Your task to perform on an android device: check android version Image 0: 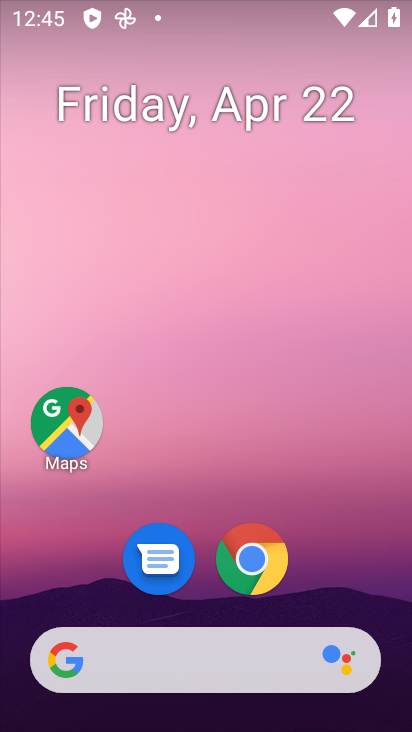
Step 0: drag from (336, 583) to (351, 177)
Your task to perform on an android device: check android version Image 1: 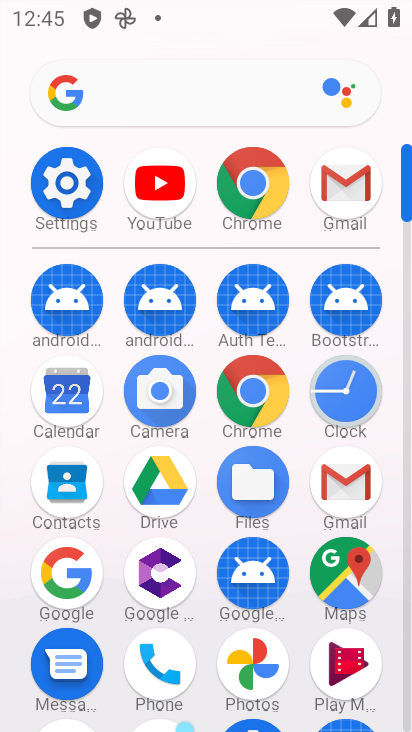
Step 1: click (80, 186)
Your task to perform on an android device: check android version Image 2: 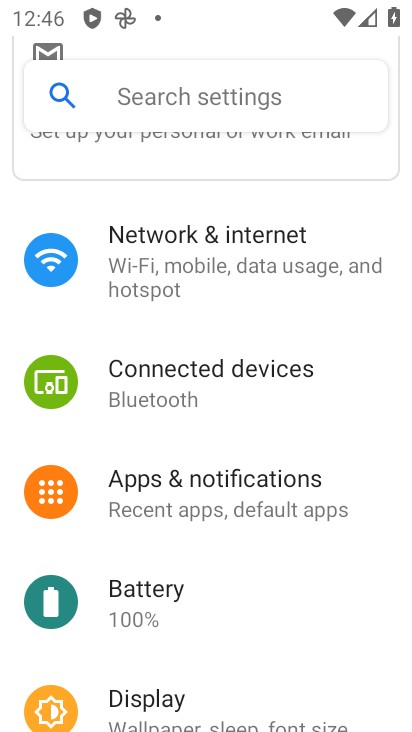
Step 2: drag from (374, 594) to (378, 473)
Your task to perform on an android device: check android version Image 3: 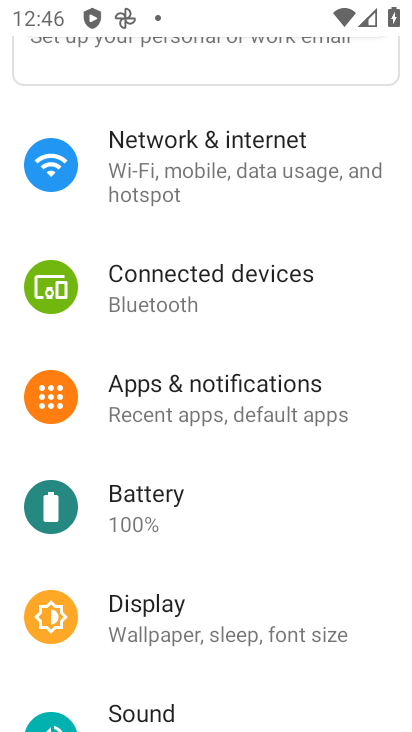
Step 3: drag from (374, 578) to (377, 466)
Your task to perform on an android device: check android version Image 4: 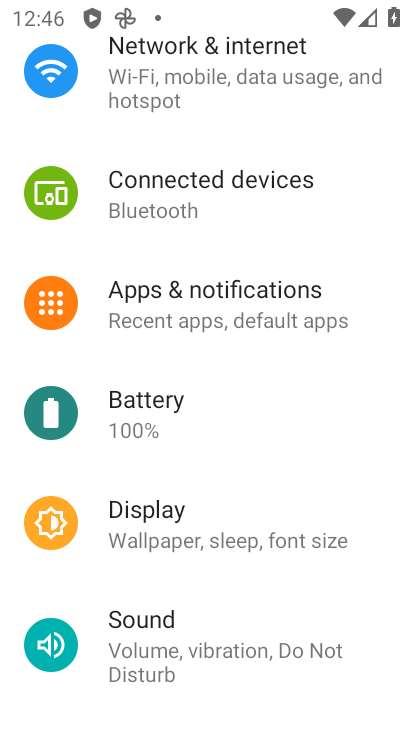
Step 4: drag from (359, 620) to (368, 498)
Your task to perform on an android device: check android version Image 5: 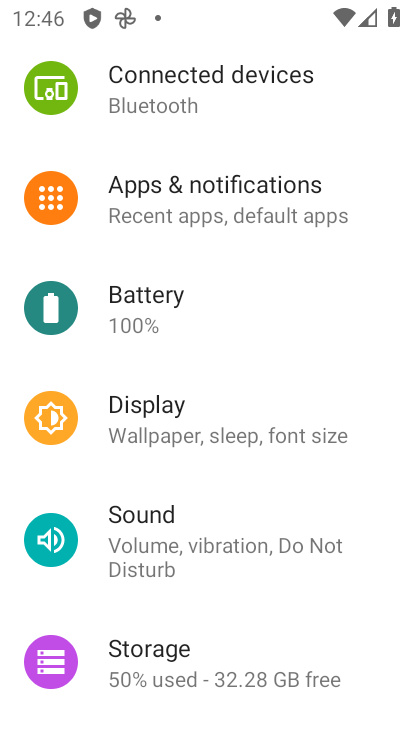
Step 5: drag from (365, 615) to (376, 514)
Your task to perform on an android device: check android version Image 6: 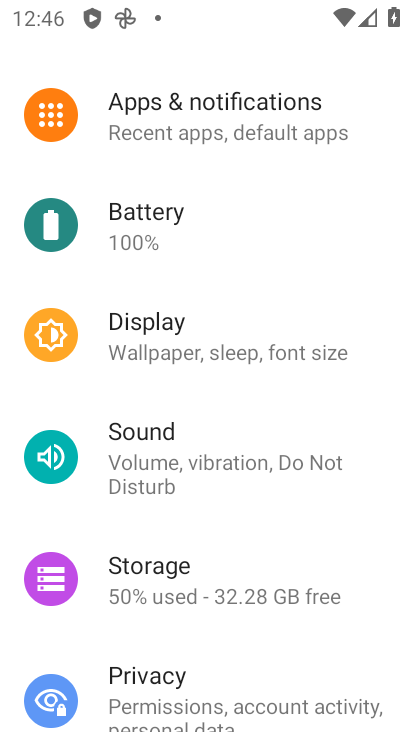
Step 6: drag from (375, 627) to (382, 497)
Your task to perform on an android device: check android version Image 7: 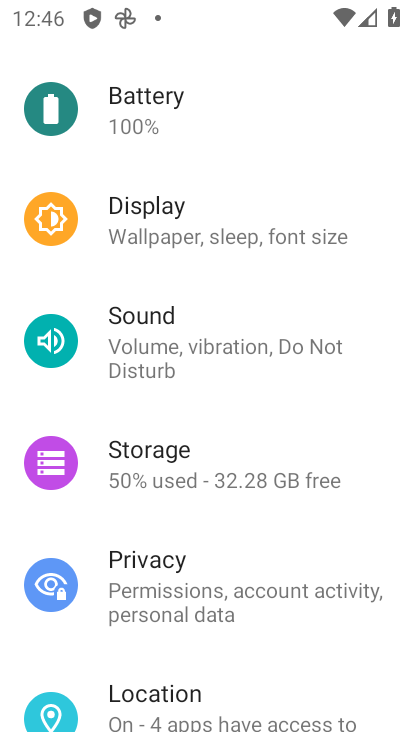
Step 7: drag from (367, 644) to (366, 526)
Your task to perform on an android device: check android version Image 8: 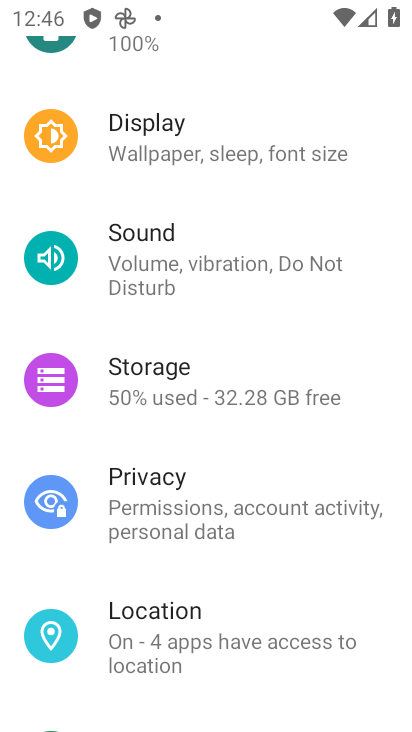
Step 8: drag from (371, 669) to (376, 539)
Your task to perform on an android device: check android version Image 9: 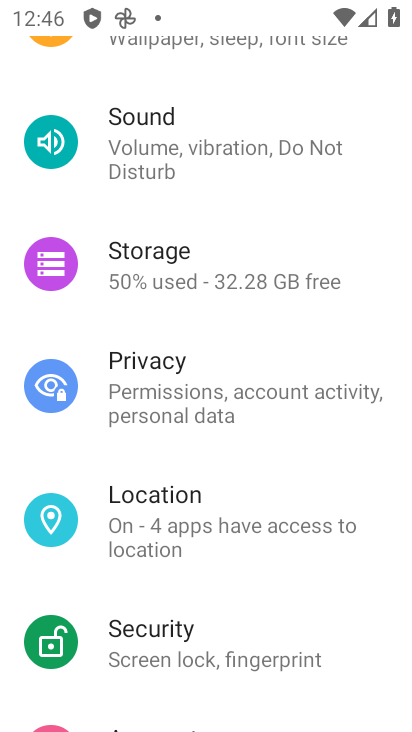
Step 9: drag from (371, 663) to (370, 544)
Your task to perform on an android device: check android version Image 10: 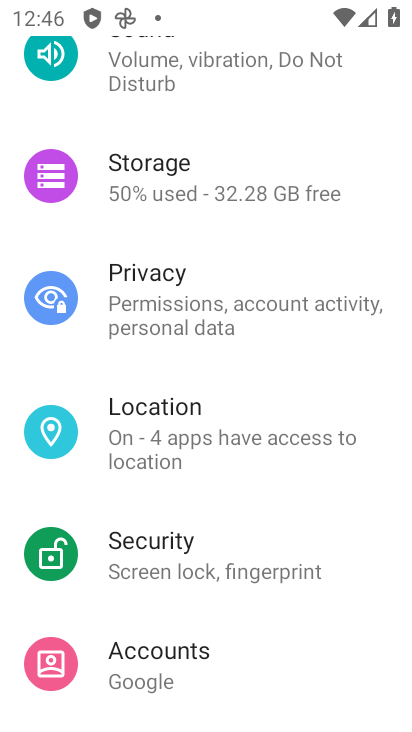
Step 10: drag from (355, 644) to (360, 542)
Your task to perform on an android device: check android version Image 11: 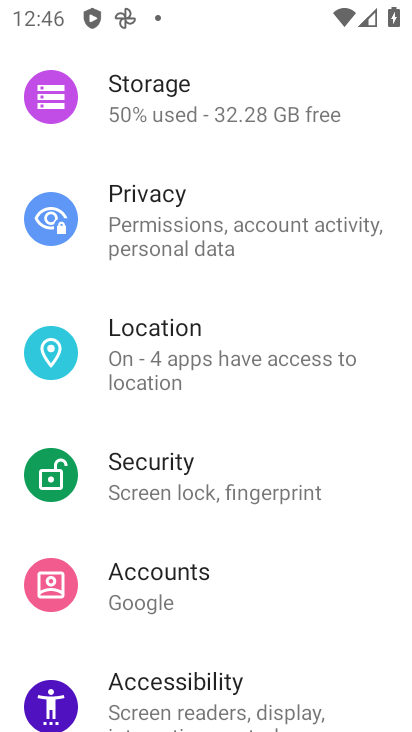
Step 11: drag from (363, 638) to (359, 514)
Your task to perform on an android device: check android version Image 12: 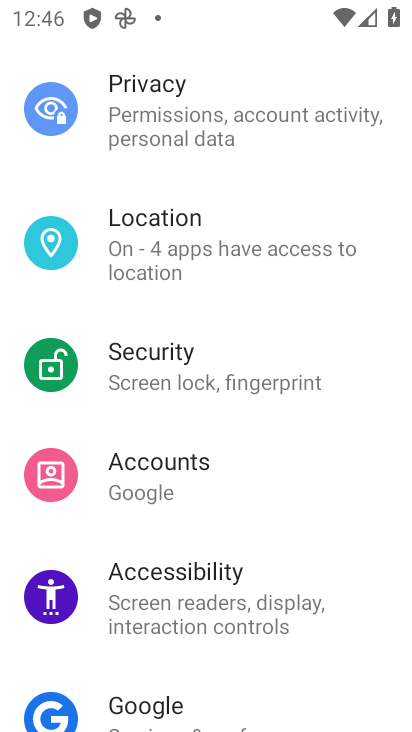
Step 12: drag from (338, 659) to (340, 528)
Your task to perform on an android device: check android version Image 13: 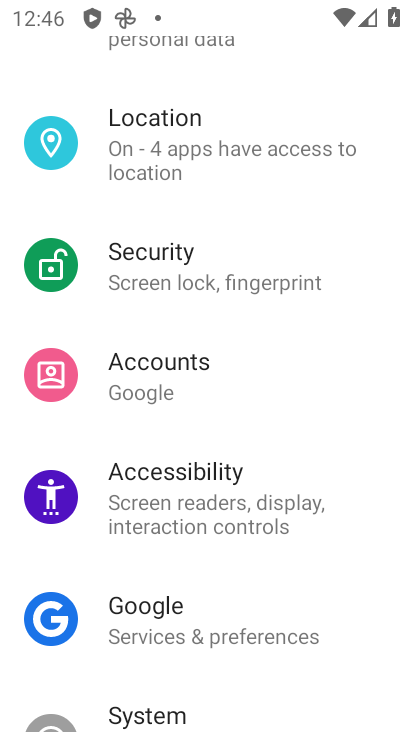
Step 13: drag from (345, 670) to (349, 510)
Your task to perform on an android device: check android version Image 14: 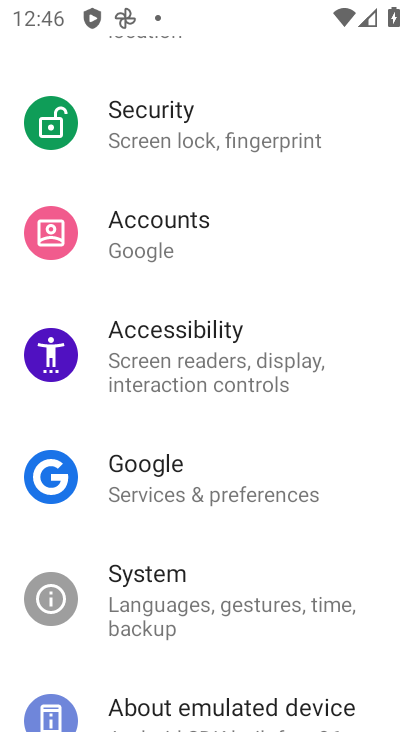
Step 14: drag from (344, 647) to (352, 458)
Your task to perform on an android device: check android version Image 15: 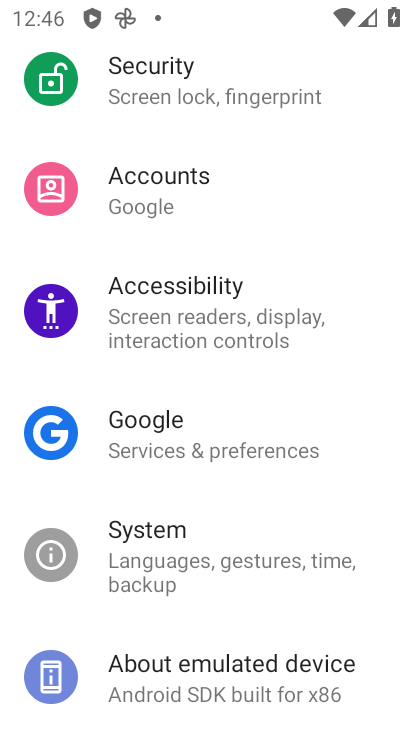
Step 15: click (175, 564)
Your task to perform on an android device: check android version Image 16: 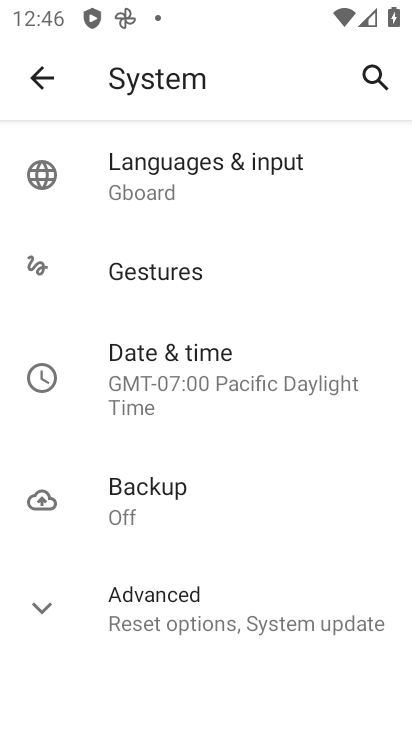
Step 16: click (186, 609)
Your task to perform on an android device: check android version Image 17: 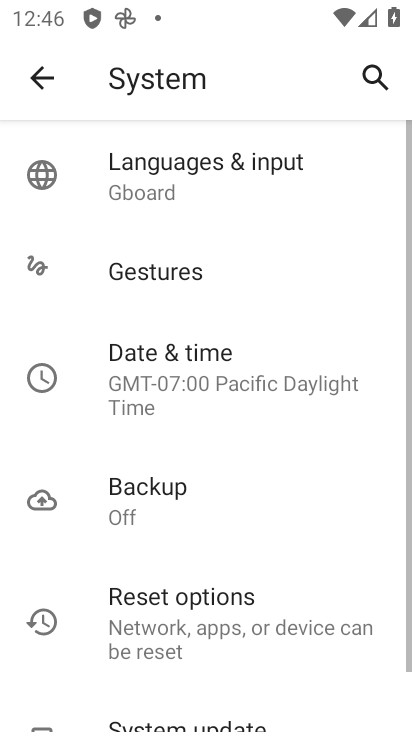
Step 17: drag from (311, 650) to (318, 445)
Your task to perform on an android device: check android version Image 18: 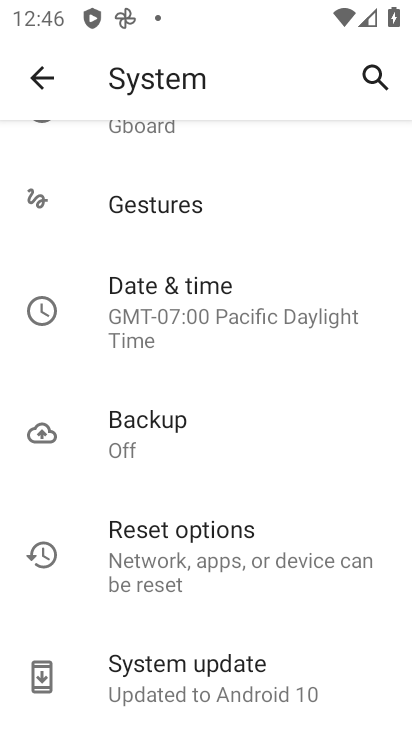
Step 18: click (231, 677)
Your task to perform on an android device: check android version Image 19: 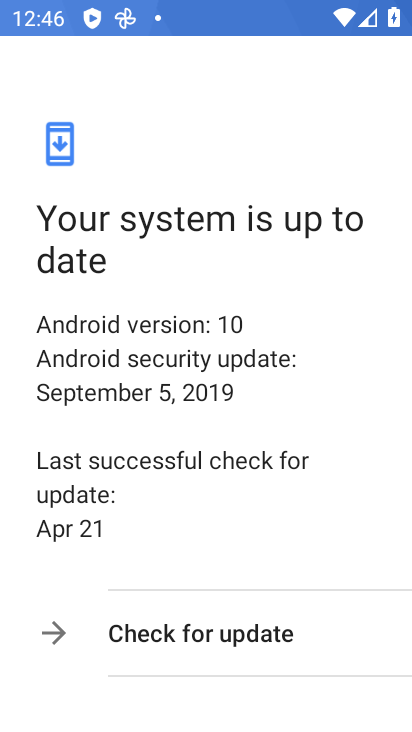
Step 19: task complete